Your task to perform on an android device: Open my contact list Image 0: 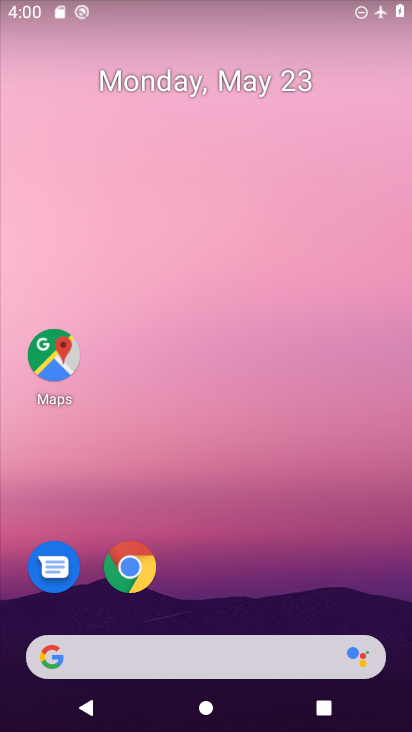
Step 0: drag from (384, 651) to (257, 129)
Your task to perform on an android device: Open my contact list Image 1: 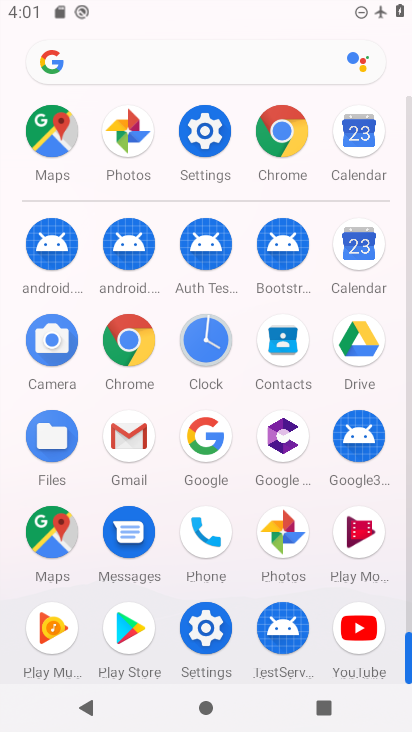
Step 1: click (282, 336)
Your task to perform on an android device: Open my contact list Image 2: 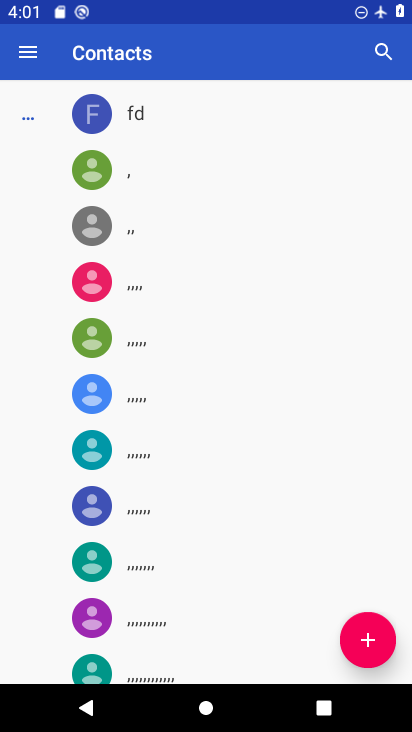
Step 2: task complete